Your task to perform on an android device: Open eBay Image 0: 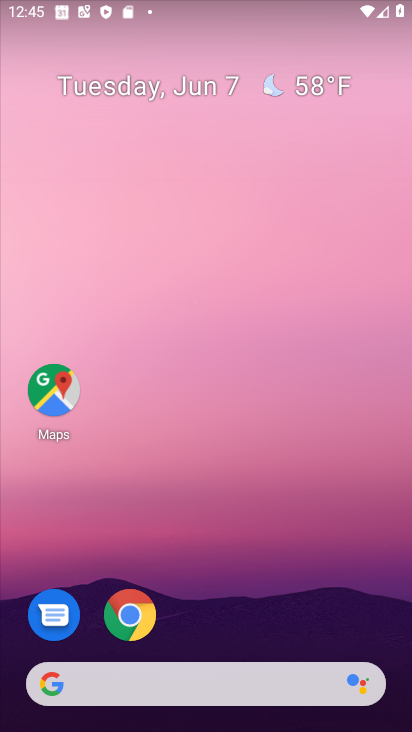
Step 0: click (134, 614)
Your task to perform on an android device: Open eBay Image 1: 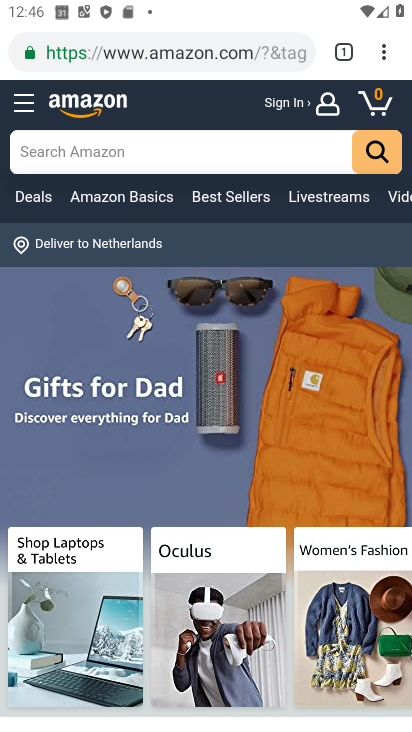
Step 1: click (280, 60)
Your task to perform on an android device: Open eBay Image 2: 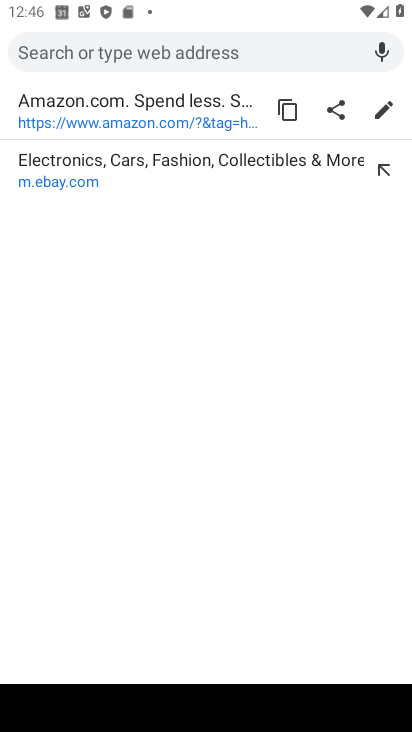
Step 2: type "eBay"
Your task to perform on an android device: Open eBay Image 3: 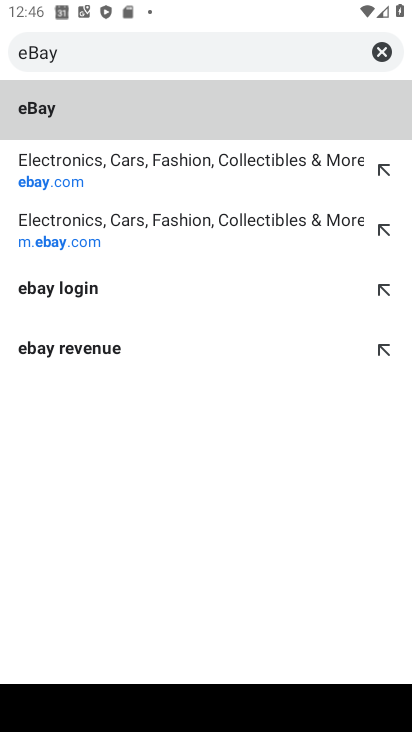
Step 3: click (153, 115)
Your task to perform on an android device: Open eBay Image 4: 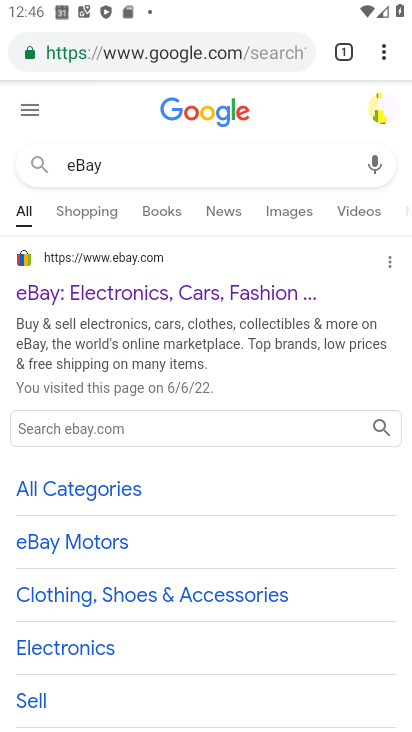
Step 4: click (181, 297)
Your task to perform on an android device: Open eBay Image 5: 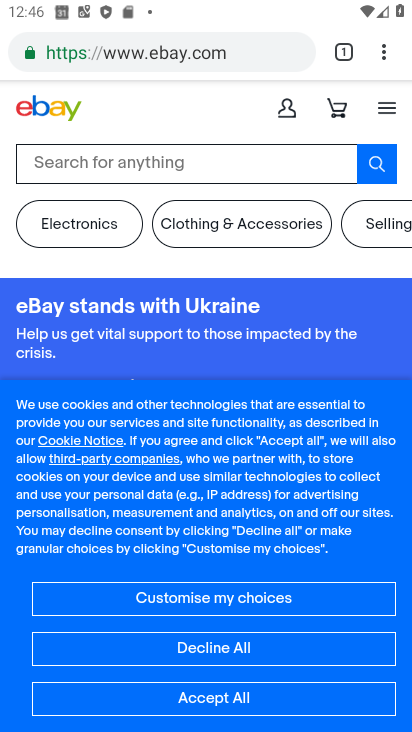
Step 5: click (216, 697)
Your task to perform on an android device: Open eBay Image 6: 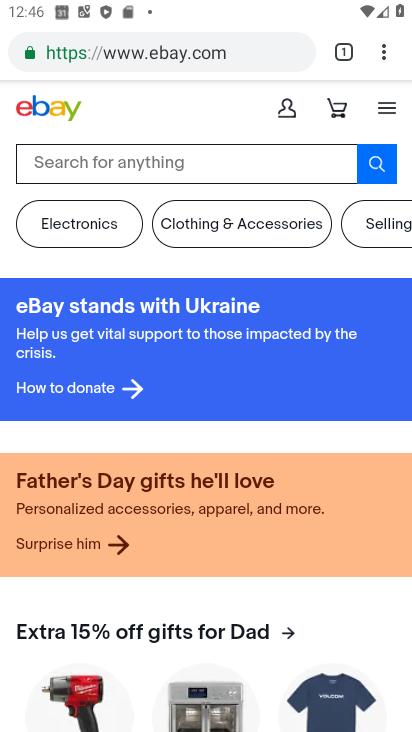
Step 6: task complete